Your task to perform on an android device: Is it going to rain today? Image 0: 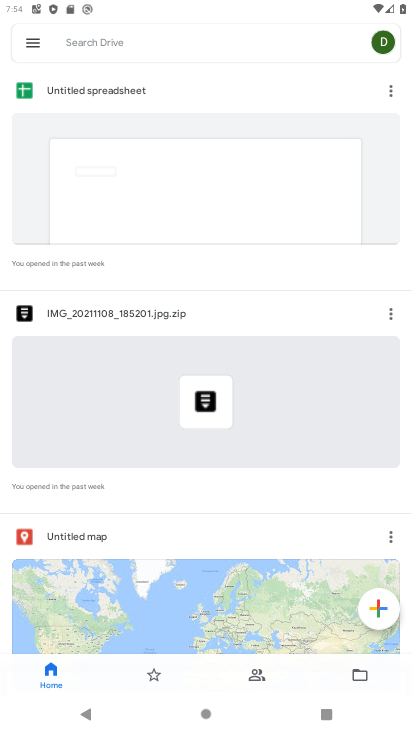
Step 0: press home button
Your task to perform on an android device: Is it going to rain today? Image 1: 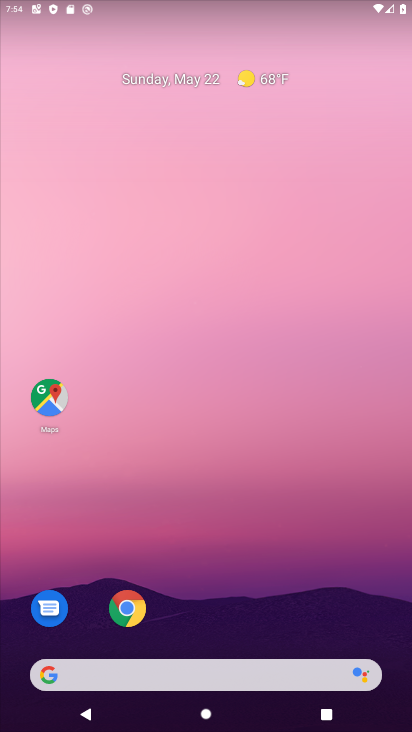
Step 1: click (241, 79)
Your task to perform on an android device: Is it going to rain today? Image 2: 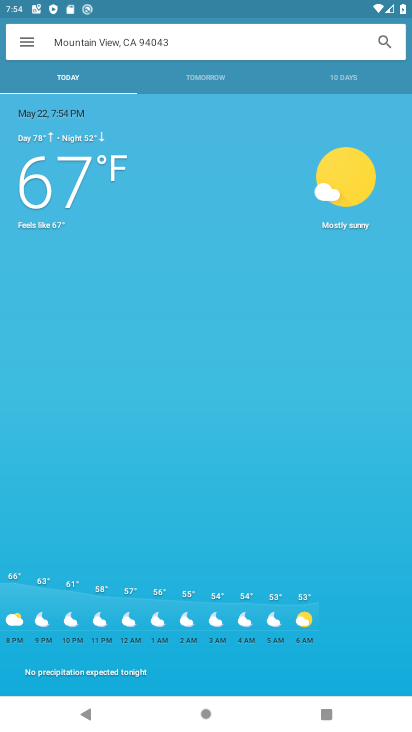
Step 2: task complete